Your task to perform on an android device: Go to notification settings Image 0: 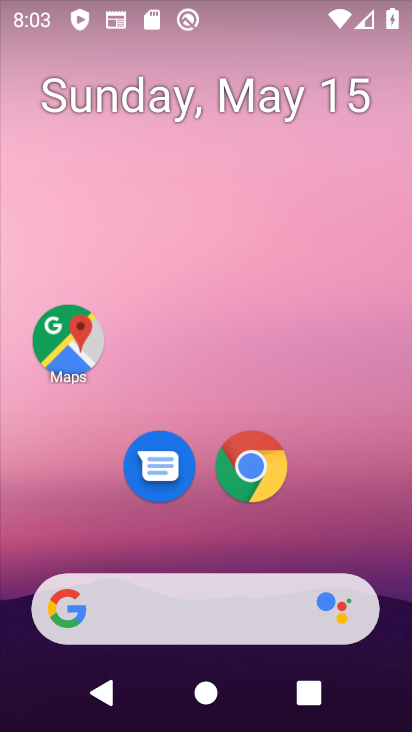
Step 0: drag from (237, 552) to (215, 88)
Your task to perform on an android device: Go to notification settings Image 1: 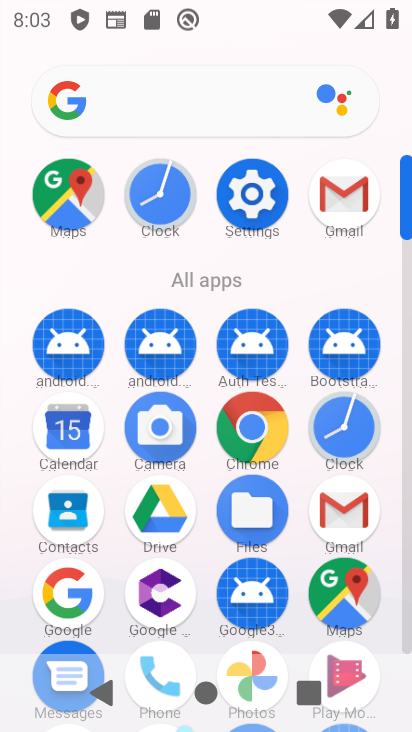
Step 1: click (248, 198)
Your task to perform on an android device: Go to notification settings Image 2: 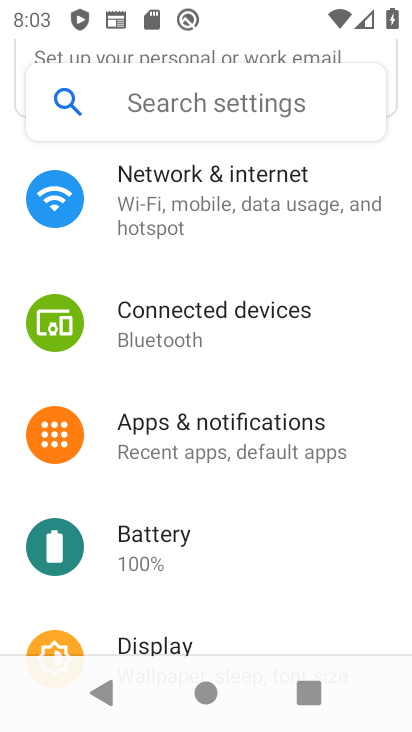
Step 2: click (143, 454)
Your task to perform on an android device: Go to notification settings Image 3: 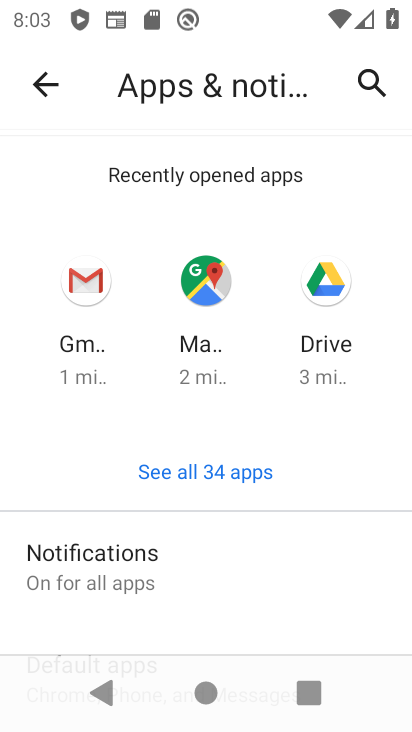
Step 3: click (173, 570)
Your task to perform on an android device: Go to notification settings Image 4: 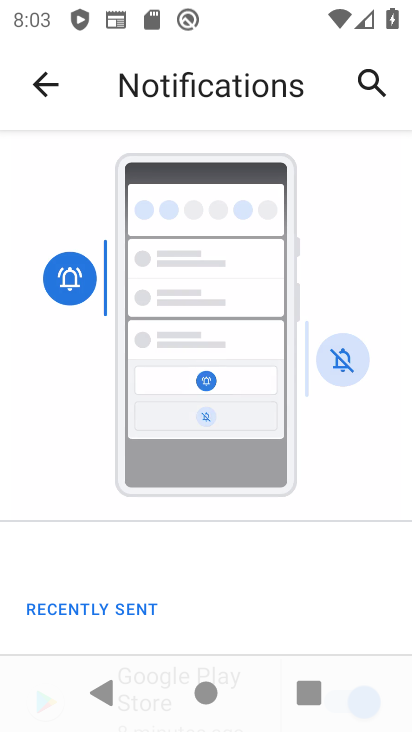
Step 4: task complete